Your task to perform on an android device: Go to Wikipedia Image 0: 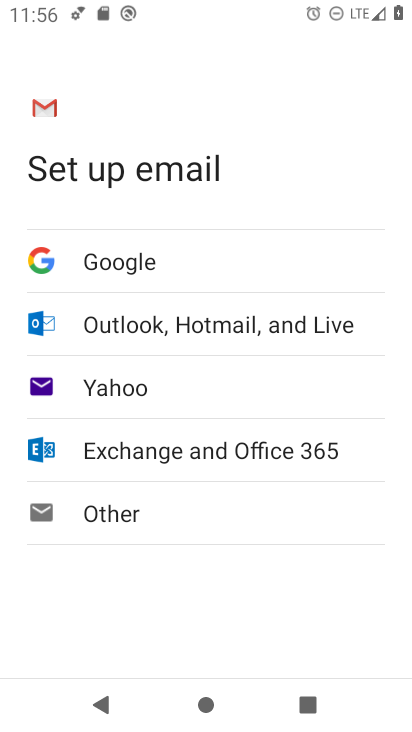
Step 0: press back button
Your task to perform on an android device: Go to Wikipedia Image 1: 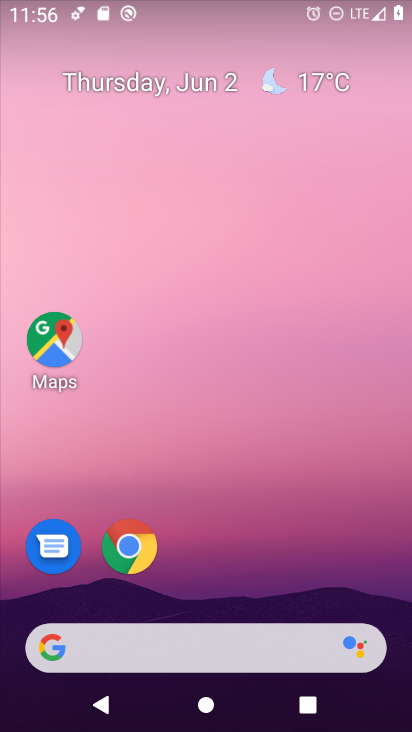
Step 1: drag from (236, 553) to (197, 22)
Your task to perform on an android device: Go to Wikipedia Image 2: 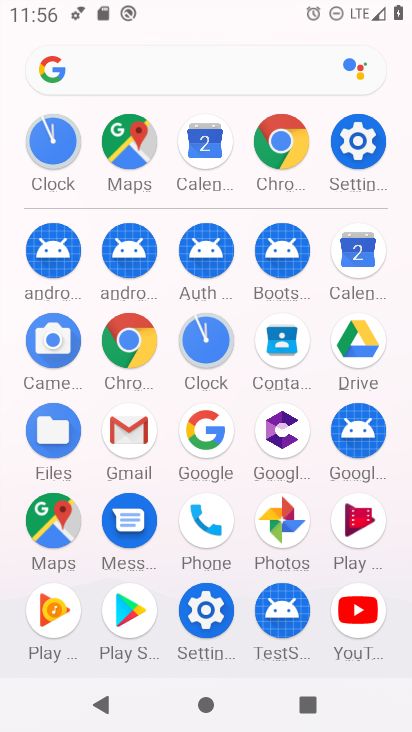
Step 2: click (281, 138)
Your task to perform on an android device: Go to Wikipedia Image 3: 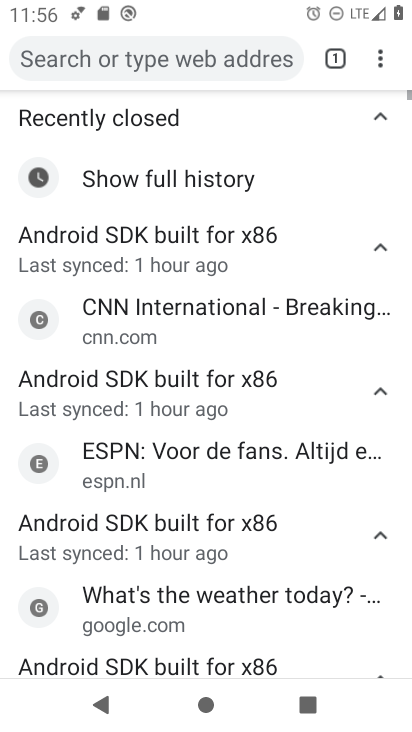
Step 3: click (196, 65)
Your task to perform on an android device: Go to Wikipedia Image 4: 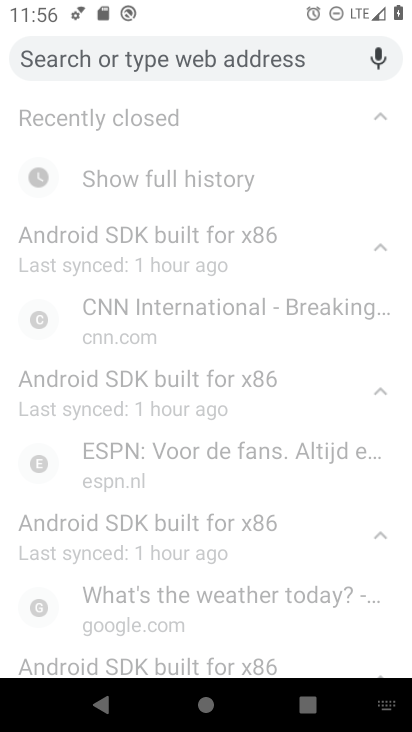
Step 4: type "Wikipedia"
Your task to perform on an android device: Go to Wikipedia Image 5: 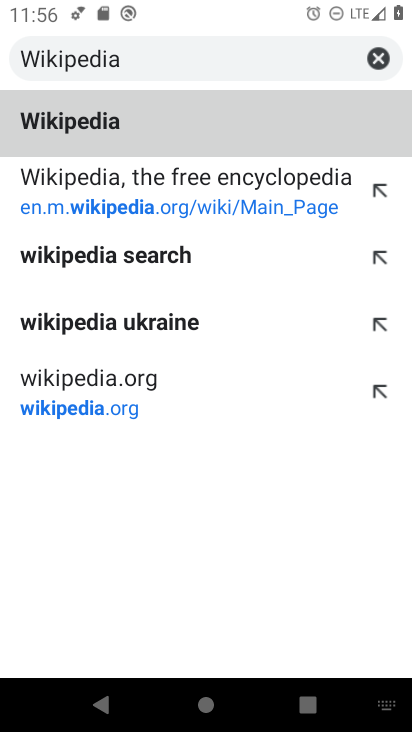
Step 5: click (90, 183)
Your task to perform on an android device: Go to Wikipedia Image 6: 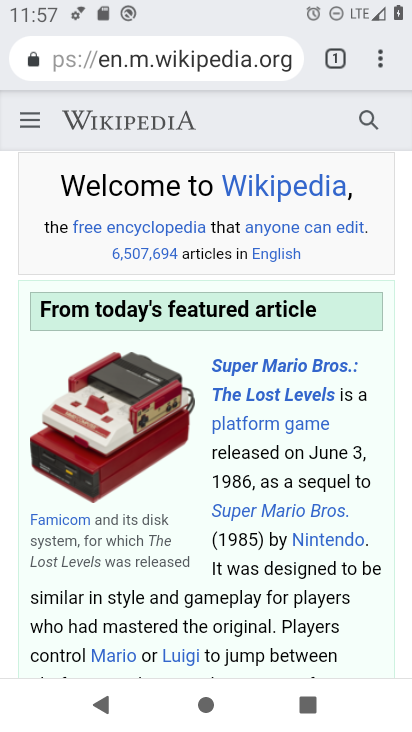
Step 6: task complete